Your task to perform on an android device: Open location settings Image 0: 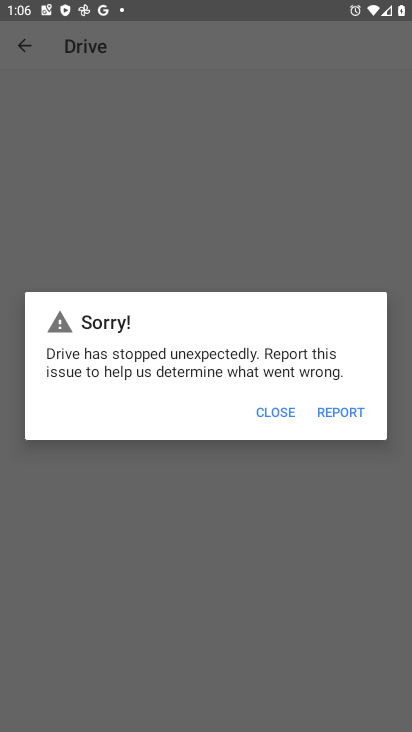
Step 0: press home button
Your task to perform on an android device: Open location settings Image 1: 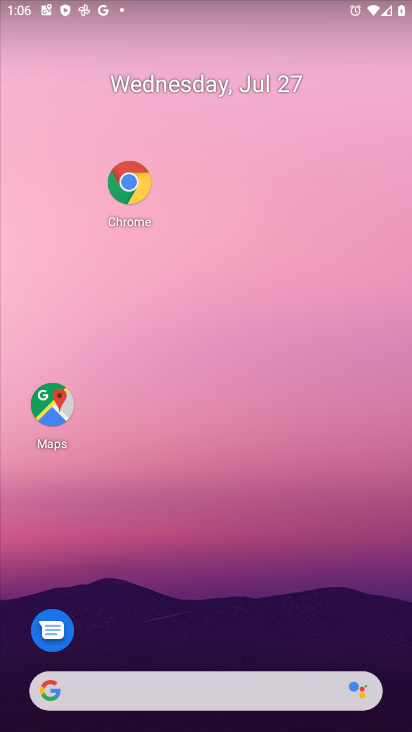
Step 1: drag from (159, 700) to (256, 45)
Your task to perform on an android device: Open location settings Image 2: 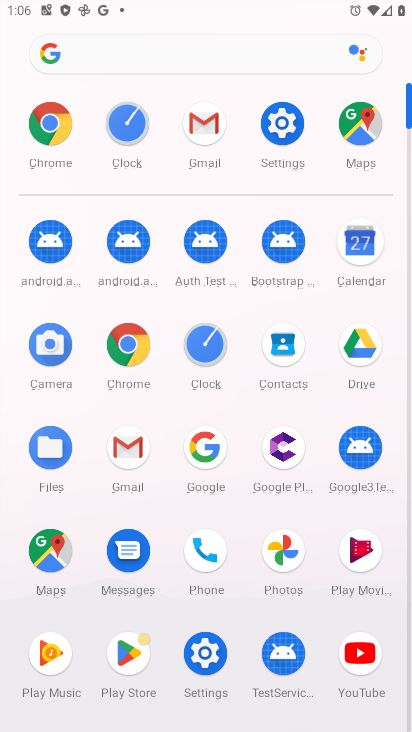
Step 2: click (276, 132)
Your task to perform on an android device: Open location settings Image 3: 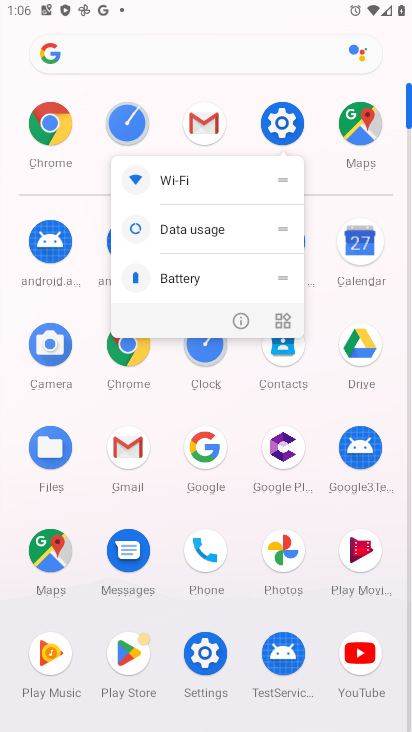
Step 3: click (276, 132)
Your task to perform on an android device: Open location settings Image 4: 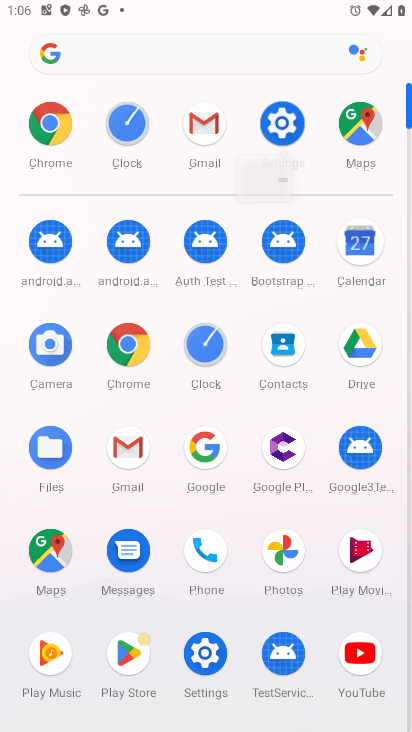
Step 4: click (276, 132)
Your task to perform on an android device: Open location settings Image 5: 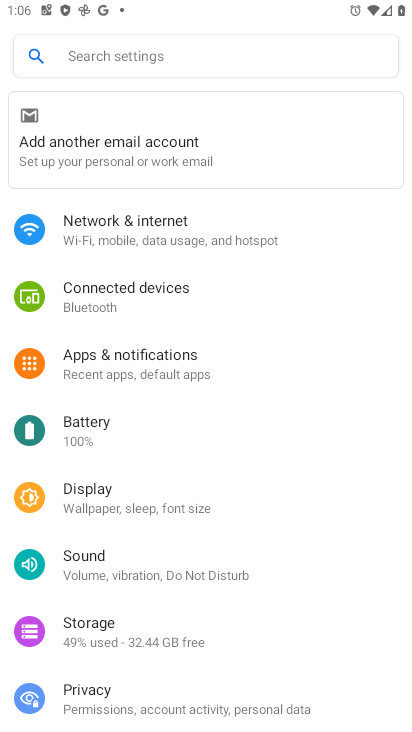
Step 5: drag from (195, 651) to (218, 33)
Your task to perform on an android device: Open location settings Image 6: 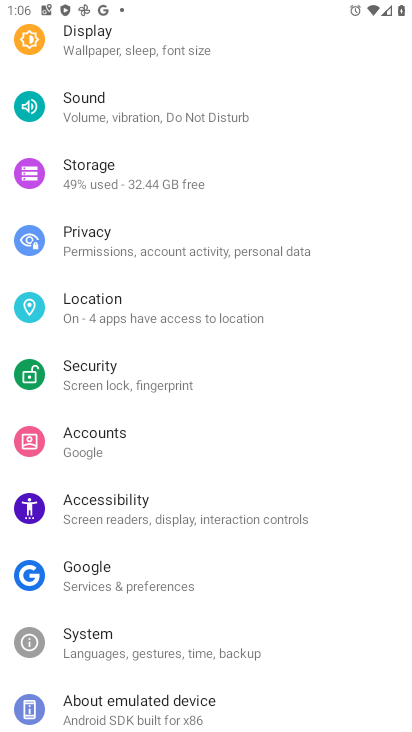
Step 6: click (114, 309)
Your task to perform on an android device: Open location settings Image 7: 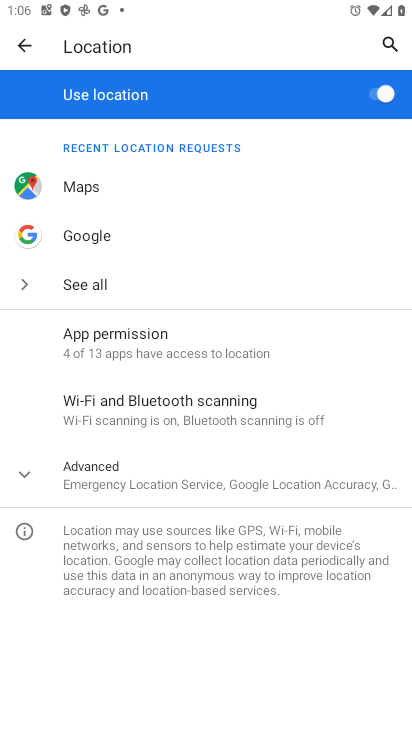
Step 7: task complete